Your task to perform on an android device: Open internet settings Image 0: 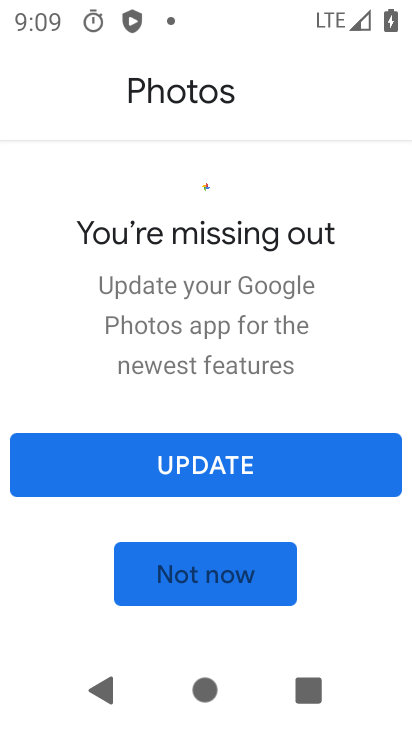
Step 0: press home button
Your task to perform on an android device: Open internet settings Image 1: 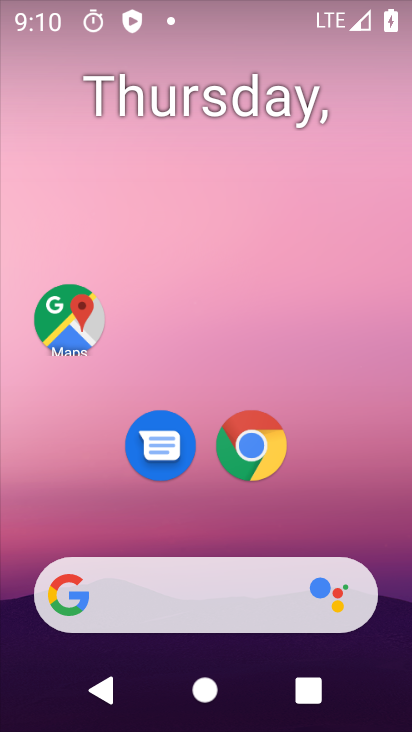
Step 1: drag from (376, 505) to (331, 10)
Your task to perform on an android device: Open internet settings Image 2: 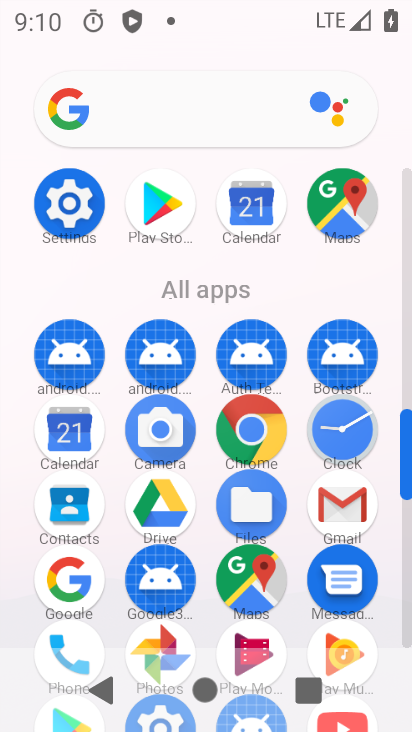
Step 2: click (65, 217)
Your task to perform on an android device: Open internet settings Image 3: 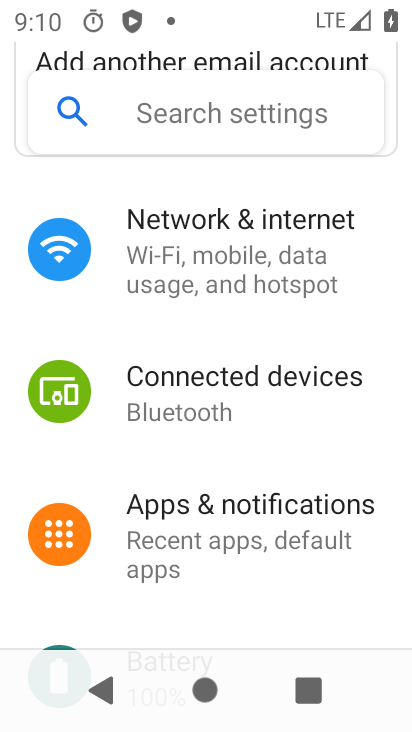
Step 3: click (218, 276)
Your task to perform on an android device: Open internet settings Image 4: 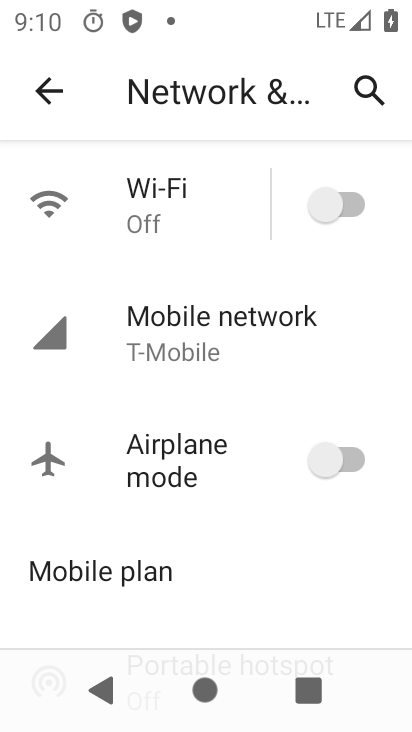
Step 4: task complete